Your task to perform on an android device: install app "LiveIn - Share Your Moment" Image 0: 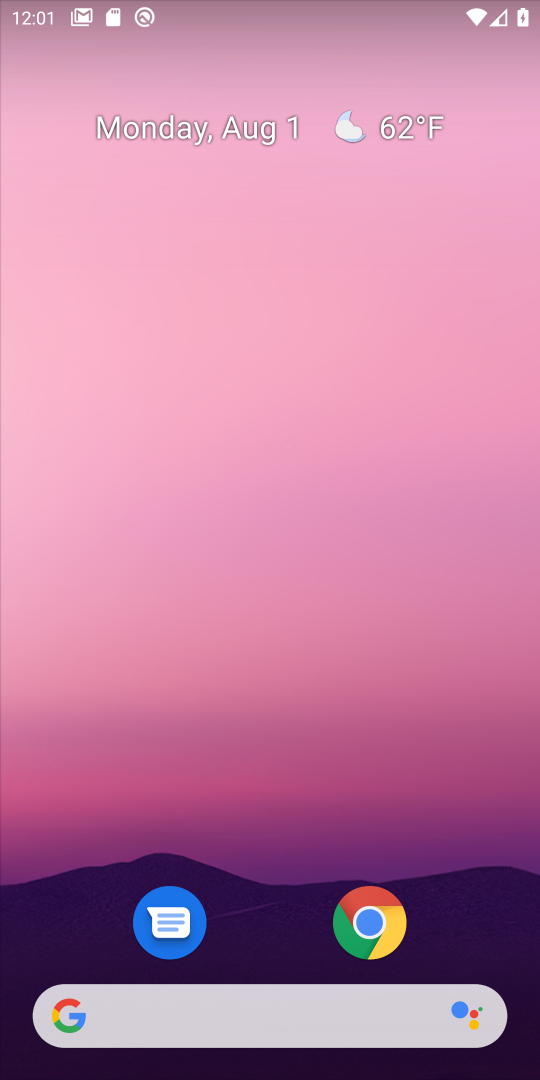
Step 0: drag from (274, 787) to (274, 272)
Your task to perform on an android device: install app "LiveIn - Share Your Moment" Image 1: 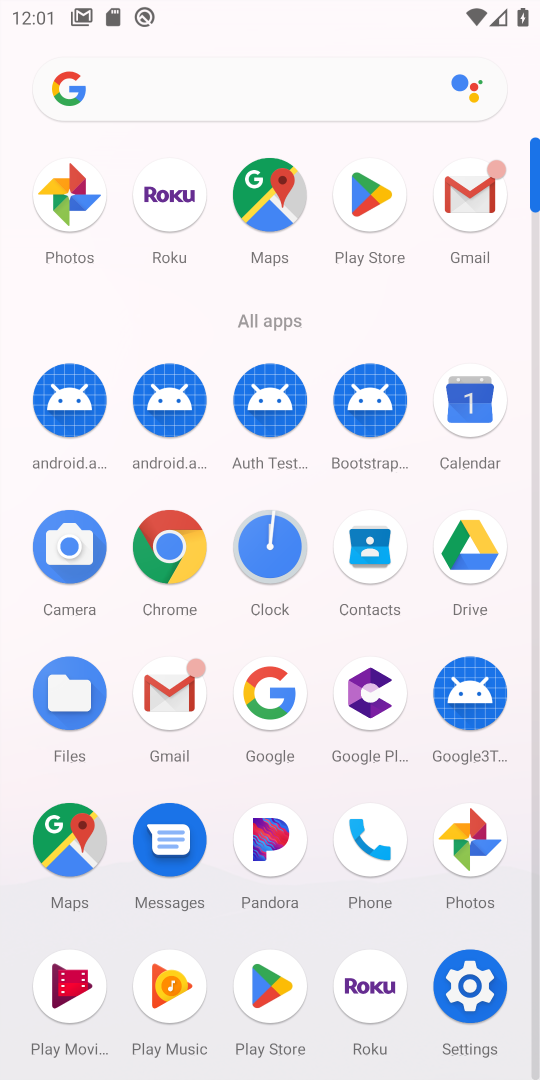
Step 1: click (362, 216)
Your task to perform on an android device: install app "LiveIn - Share Your Moment" Image 2: 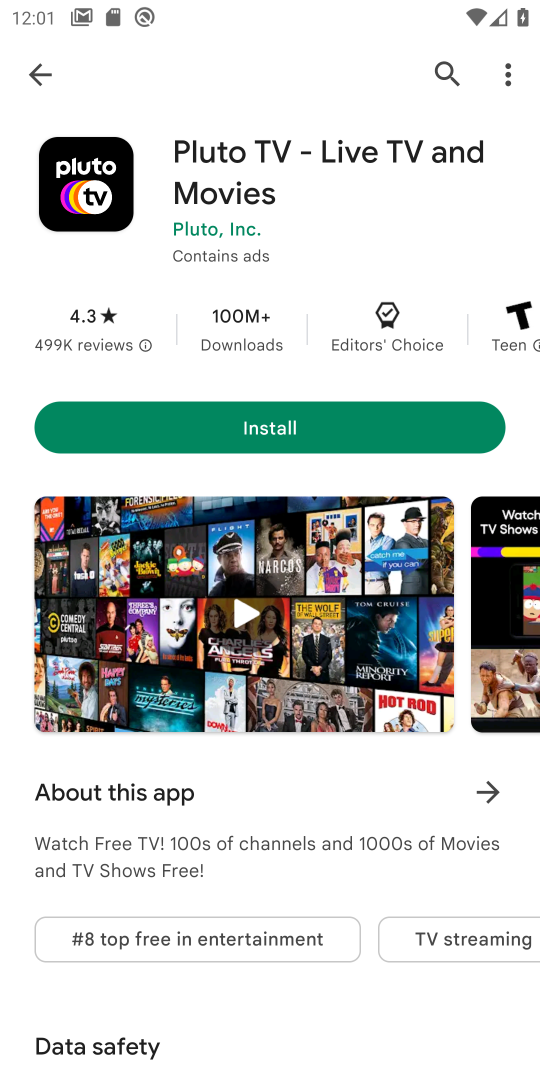
Step 2: click (441, 74)
Your task to perform on an android device: install app "LiveIn - Share Your Moment" Image 3: 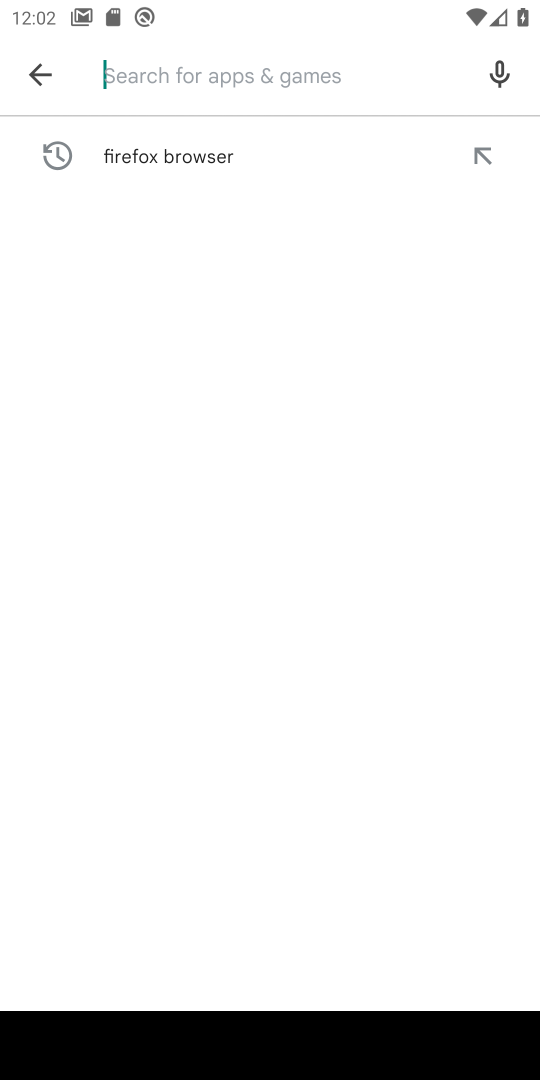
Step 3: type "LiveIn - Share Your Moment"
Your task to perform on an android device: install app "LiveIn - Share Your Moment" Image 4: 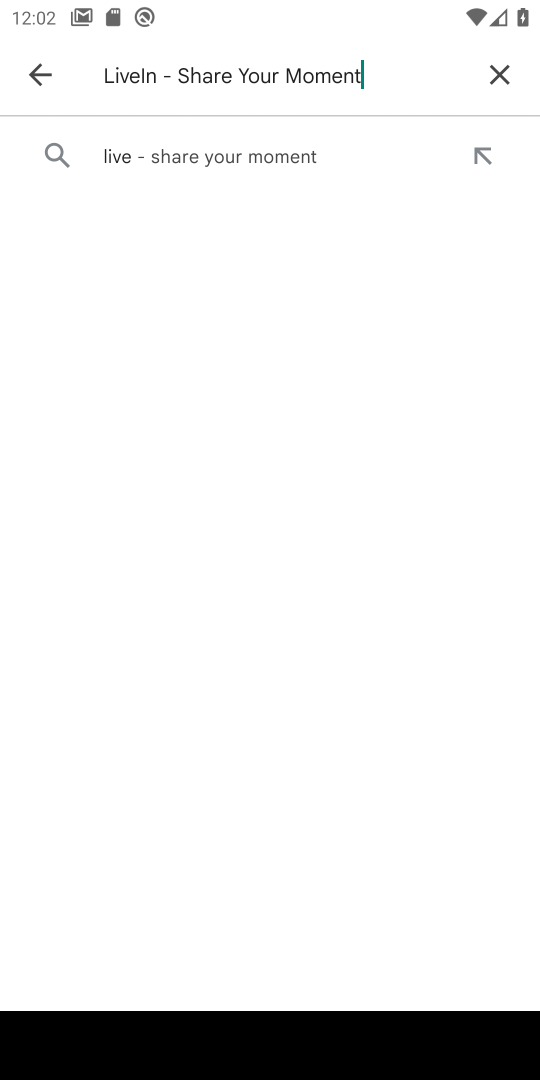
Step 4: click (329, 178)
Your task to perform on an android device: install app "LiveIn - Share Your Moment" Image 5: 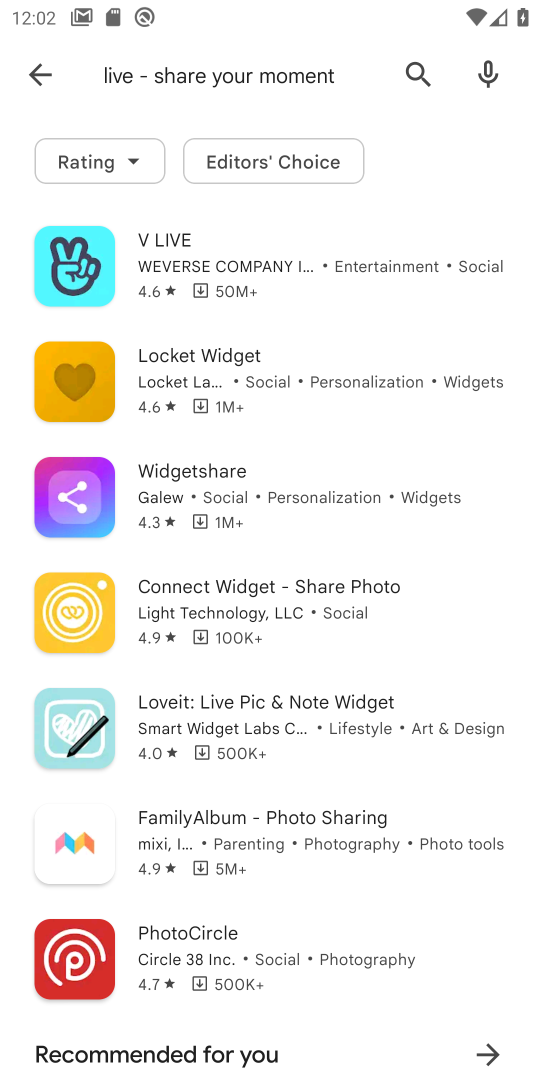
Step 5: task complete